Your task to perform on an android device: turn on improve location accuracy Image 0: 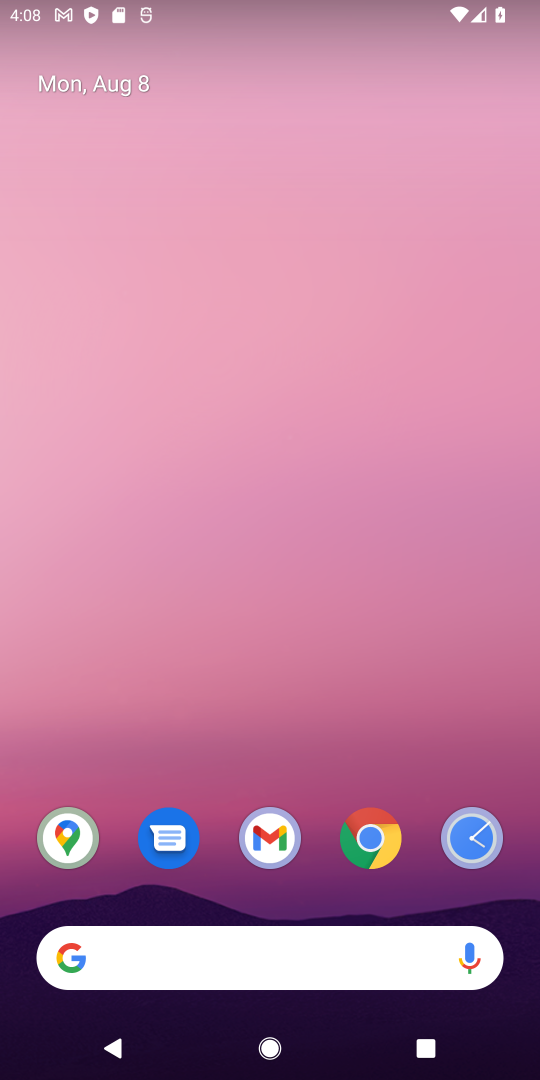
Step 0: drag from (257, 961) to (375, 437)
Your task to perform on an android device: turn on improve location accuracy Image 1: 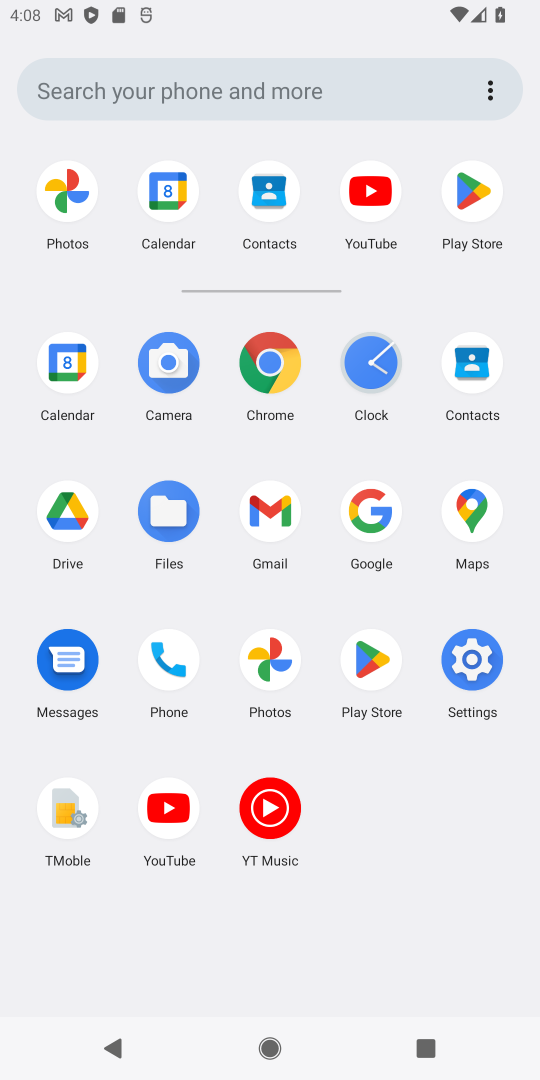
Step 1: click (472, 664)
Your task to perform on an android device: turn on improve location accuracy Image 2: 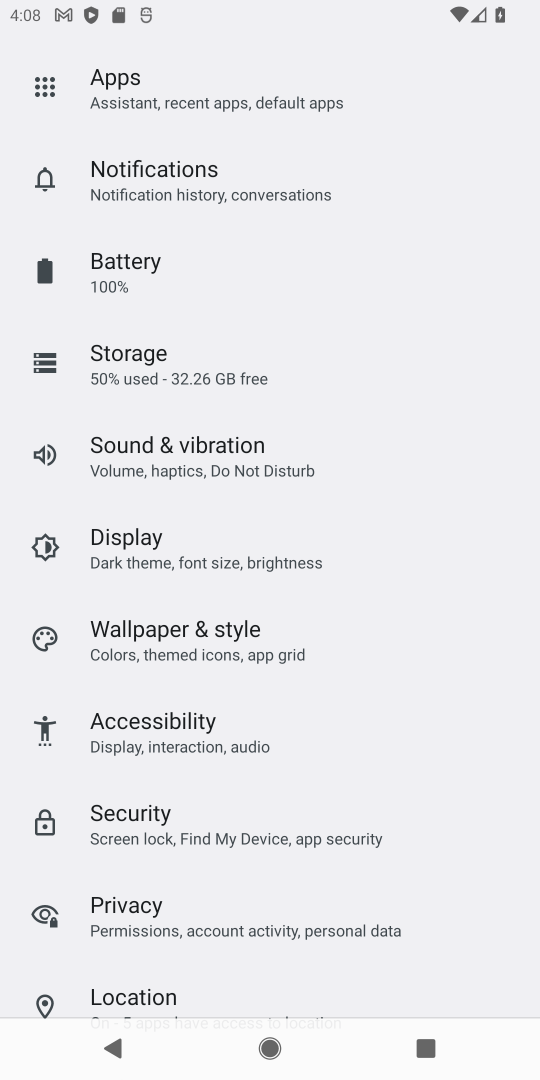
Step 2: drag from (211, 850) to (260, 681)
Your task to perform on an android device: turn on improve location accuracy Image 3: 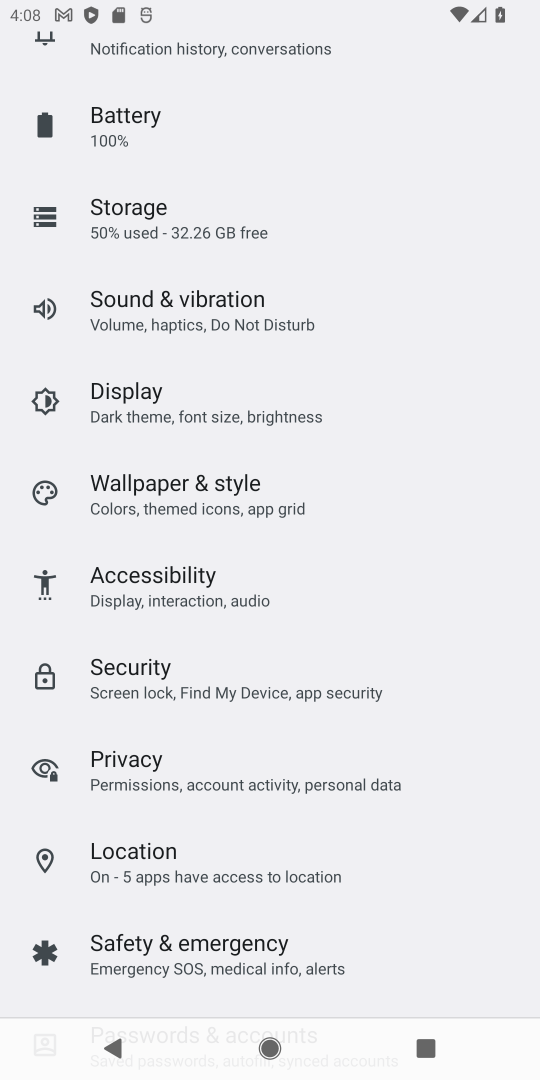
Step 3: drag from (197, 836) to (250, 689)
Your task to perform on an android device: turn on improve location accuracy Image 4: 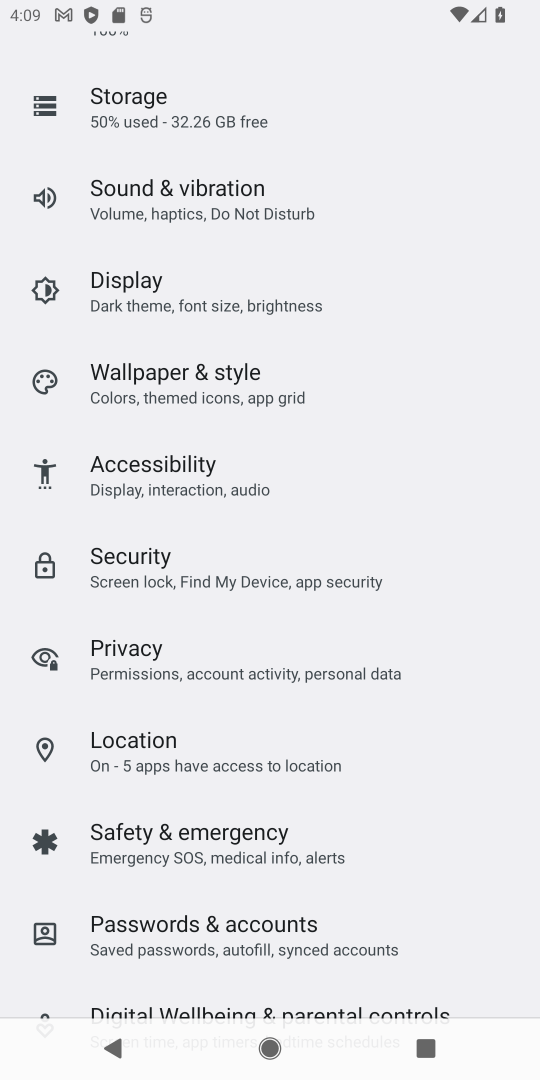
Step 4: drag from (199, 824) to (246, 729)
Your task to perform on an android device: turn on improve location accuracy Image 5: 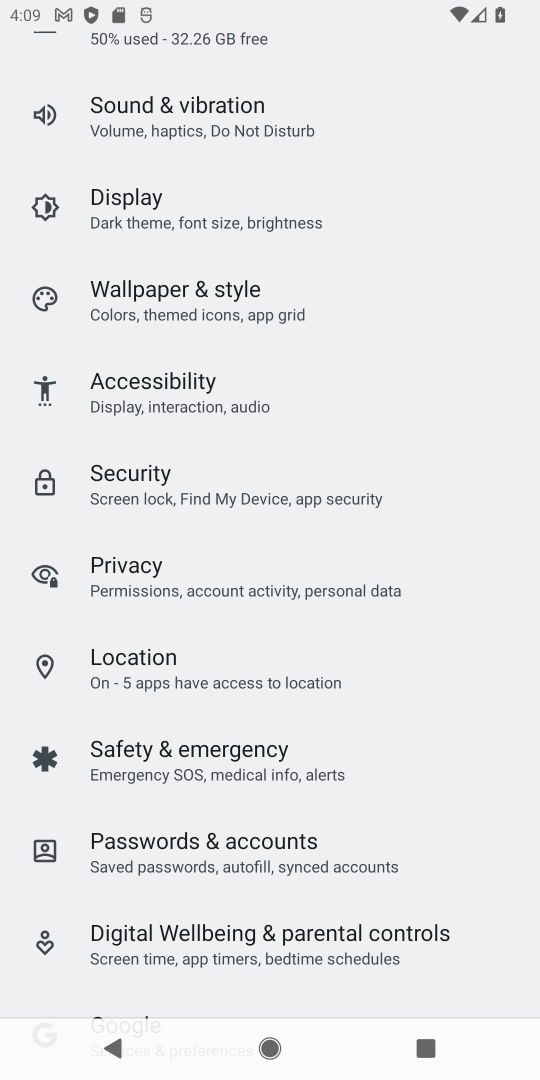
Step 5: click (237, 672)
Your task to perform on an android device: turn on improve location accuracy Image 6: 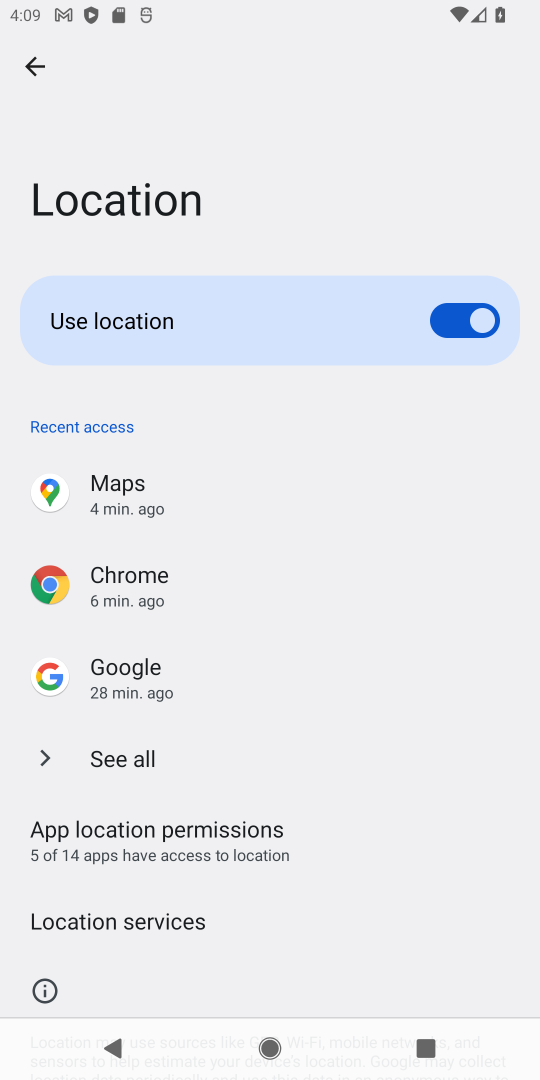
Step 6: click (154, 929)
Your task to perform on an android device: turn on improve location accuracy Image 7: 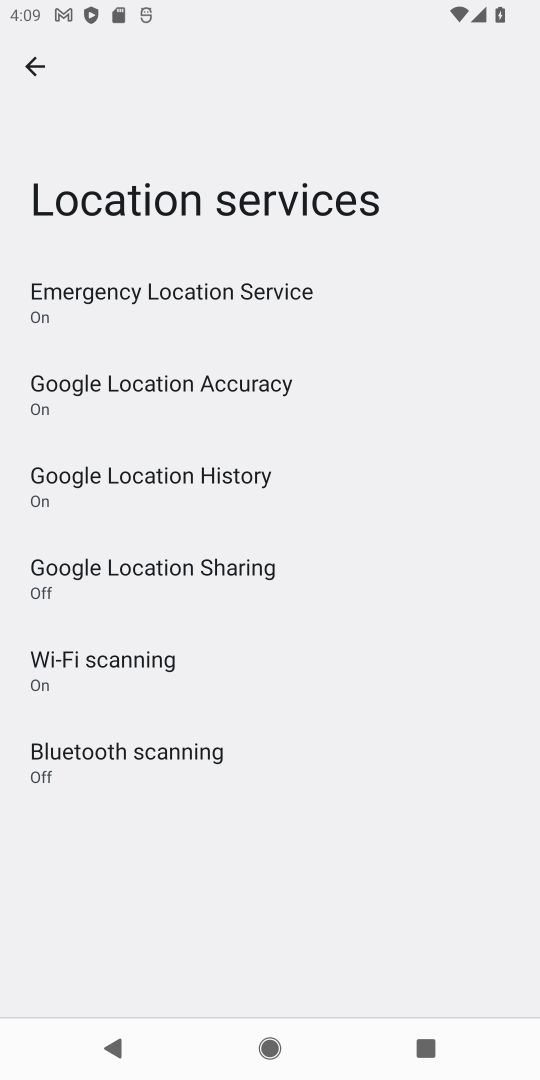
Step 7: click (248, 388)
Your task to perform on an android device: turn on improve location accuracy Image 8: 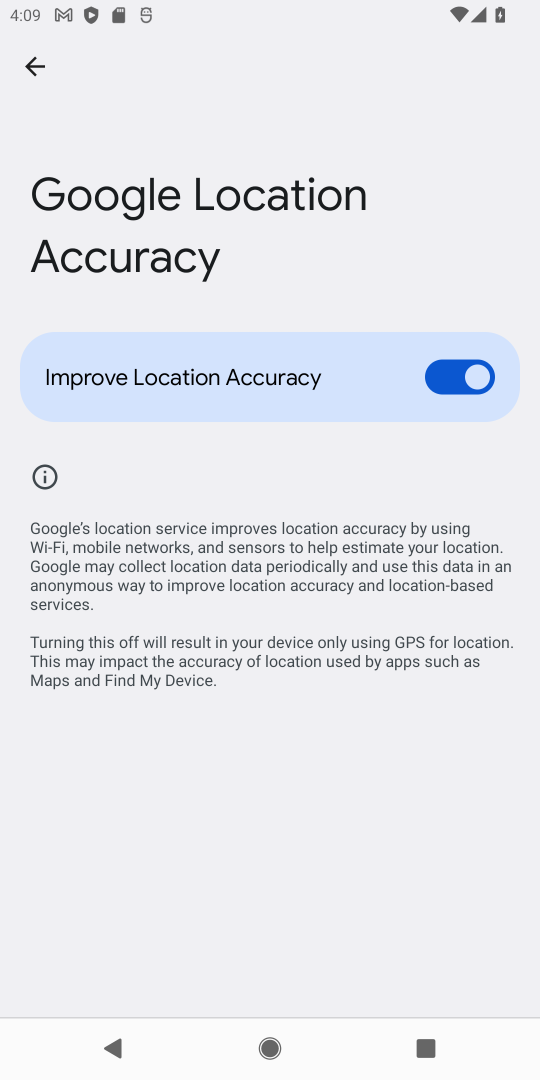
Step 8: task complete